Your task to perform on an android device: uninstall "Google Maps" Image 0: 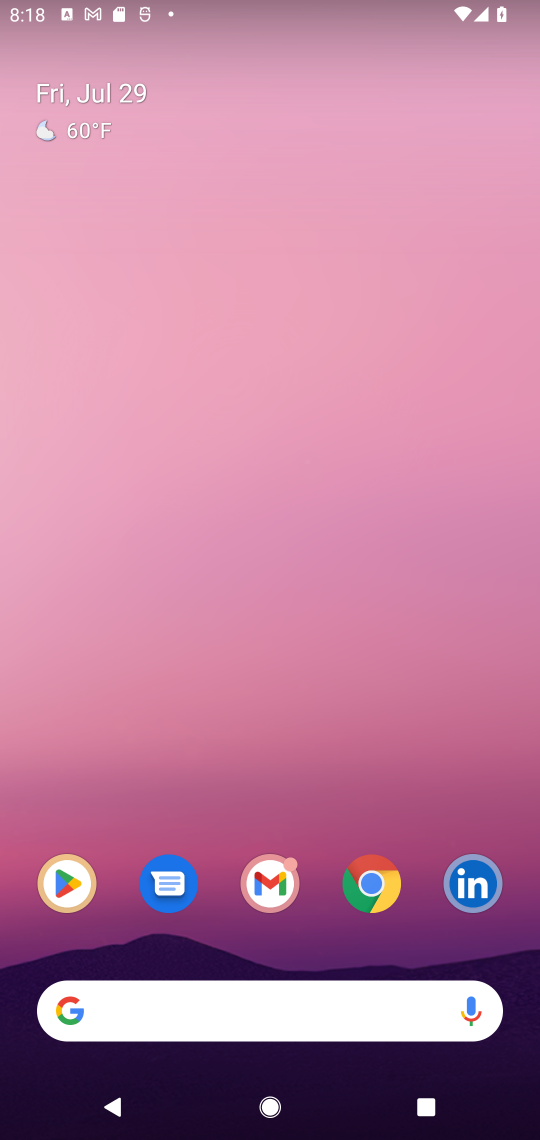
Step 0: click (78, 880)
Your task to perform on an android device: uninstall "Google Maps" Image 1: 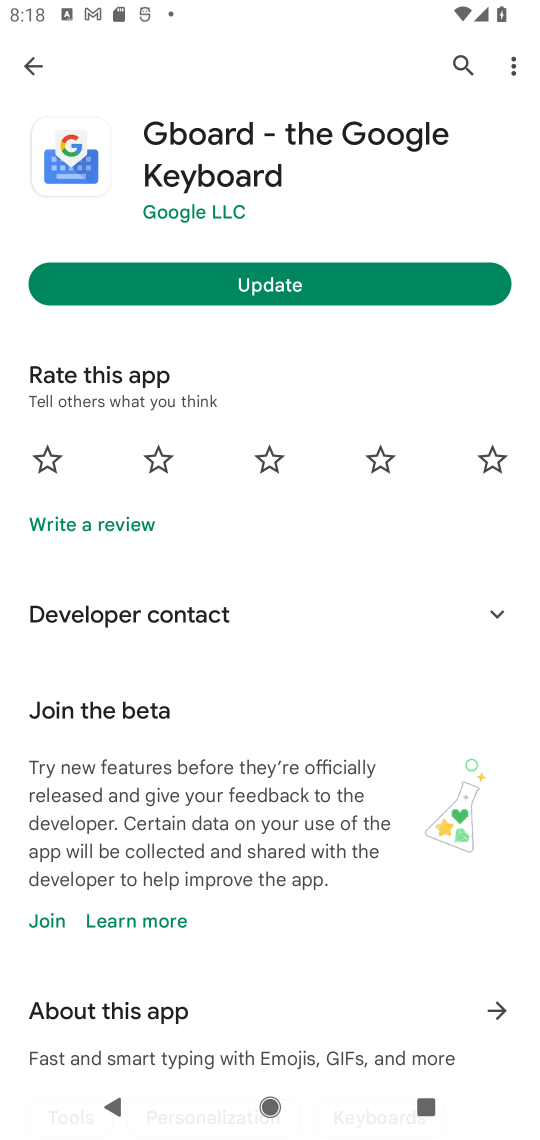
Step 1: click (461, 61)
Your task to perform on an android device: uninstall "Google Maps" Image 2: 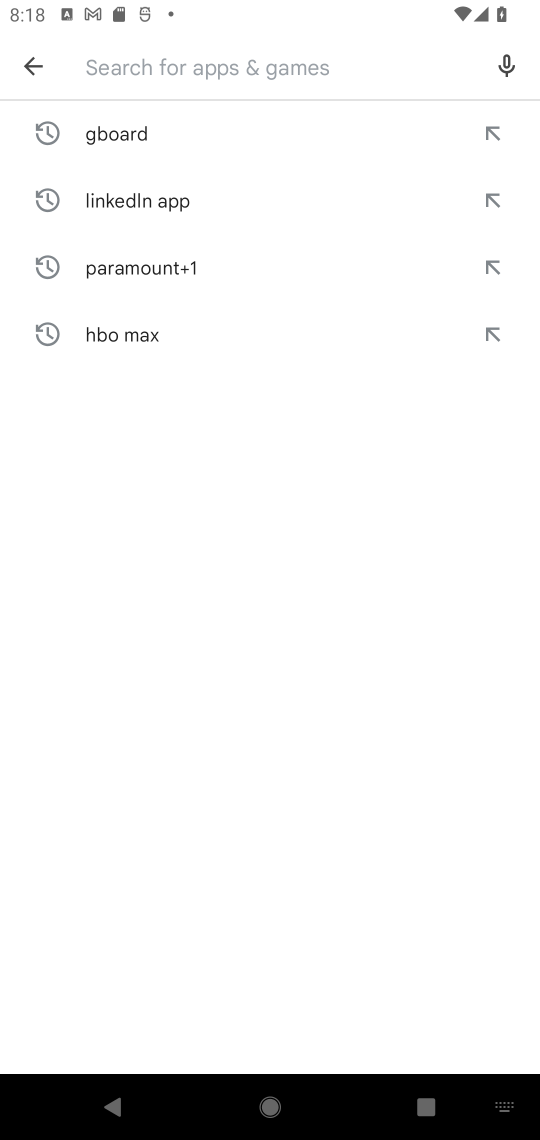
Step 2: click (215, 55)
Your task to perform on an android device: uninstall "Google Maps" Image 3: 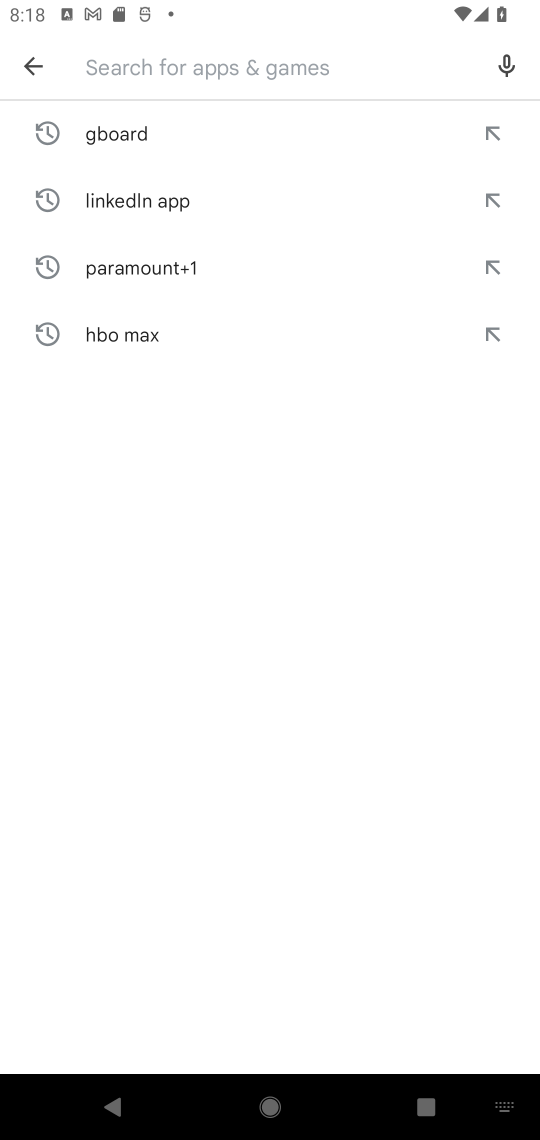
Step 3: type "google maps"
Your task to perform on an android device: uninstall "Google Maps" Image 4: 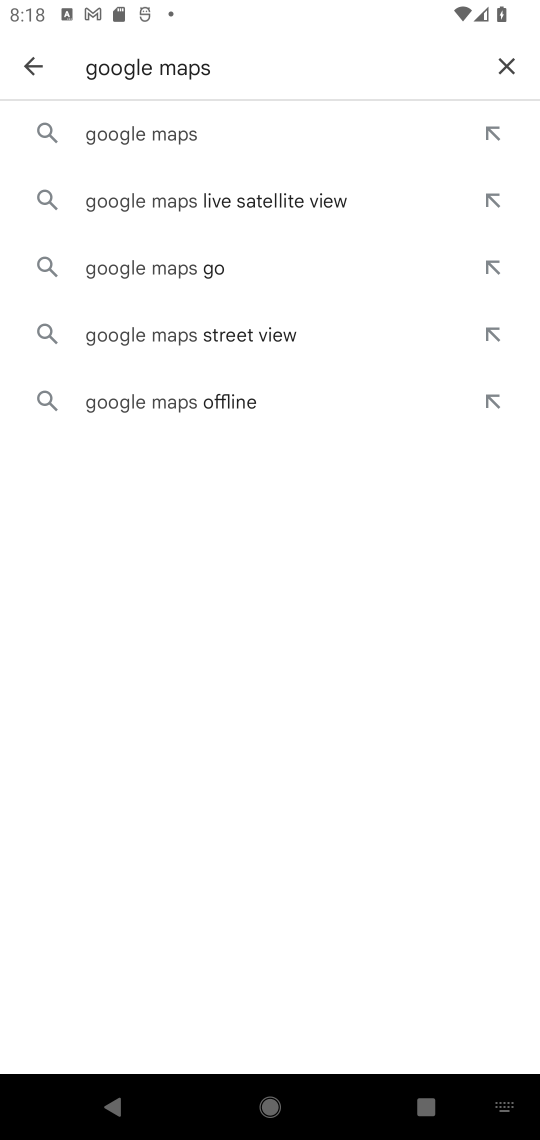
Step 4: click (148, 129)
Your task to perform on an android device: uninstall "Google Maps" Image 5: 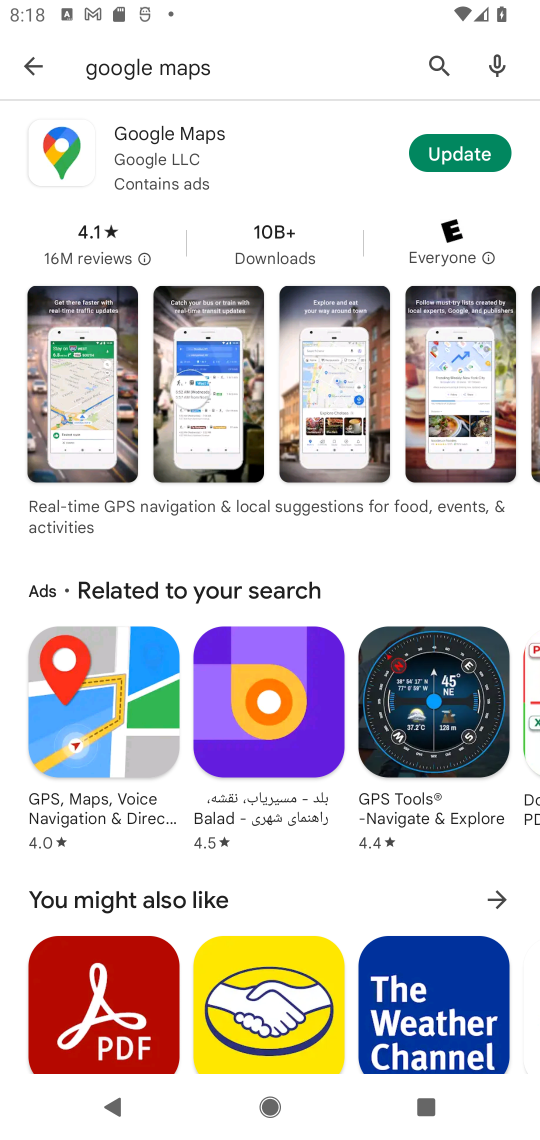
Step 5: click (131, 143)
Your task to perform on an android device: uninstall "Google Maps" Image 6: 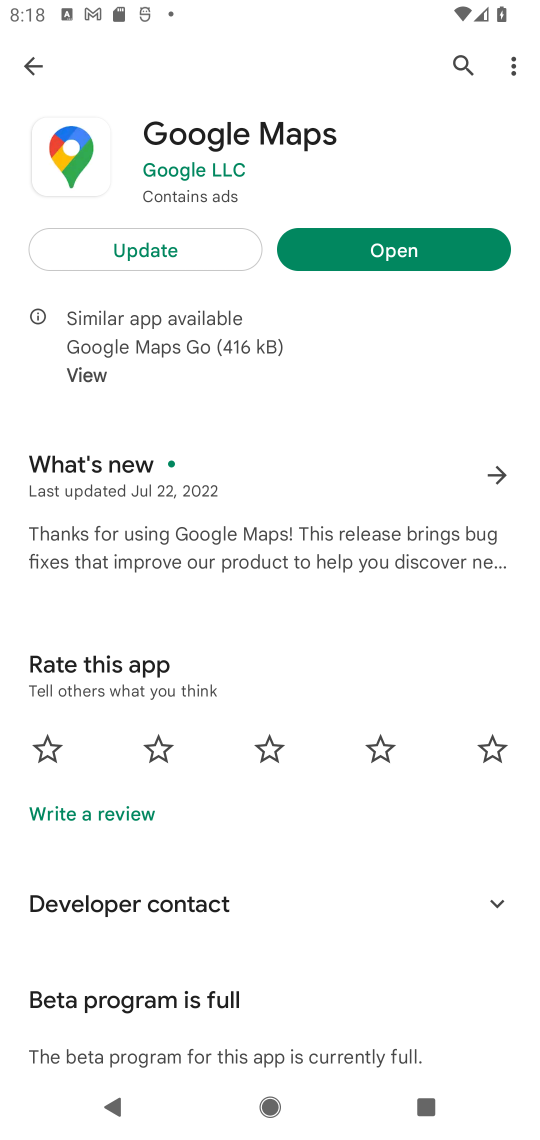
Step 6: task complete